Your task to perform on an android device: turn off improve location accuracy Image 0: 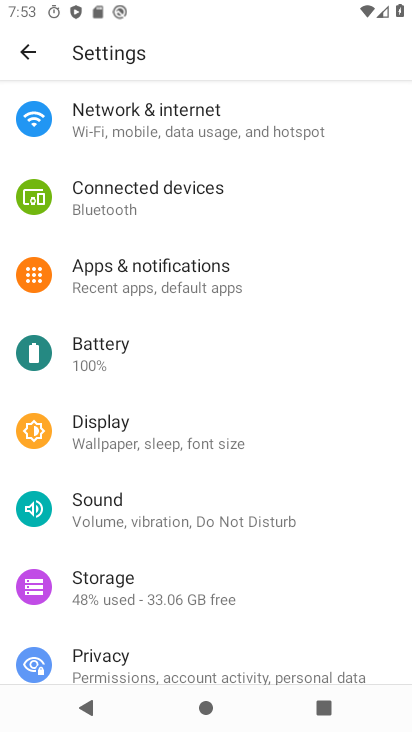
Step 0: drag from (320, 609) to (325, 349)
Your task to perform on an android device: turn off improve location accuracy Image 1: 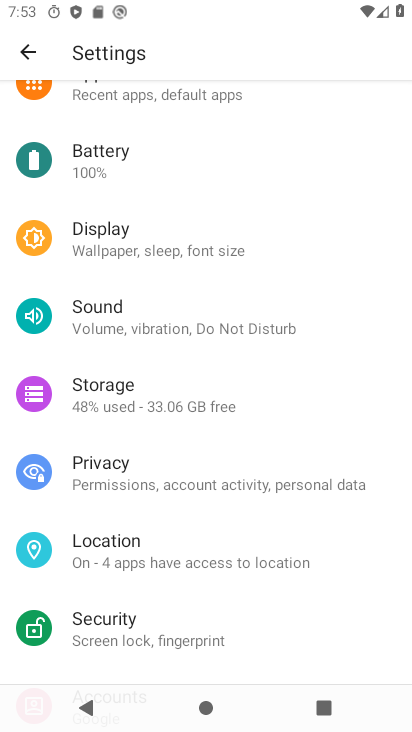
Step 1: click (129, 543)
Your task to perform on an android device: turn off improve location accuracy Image 2: 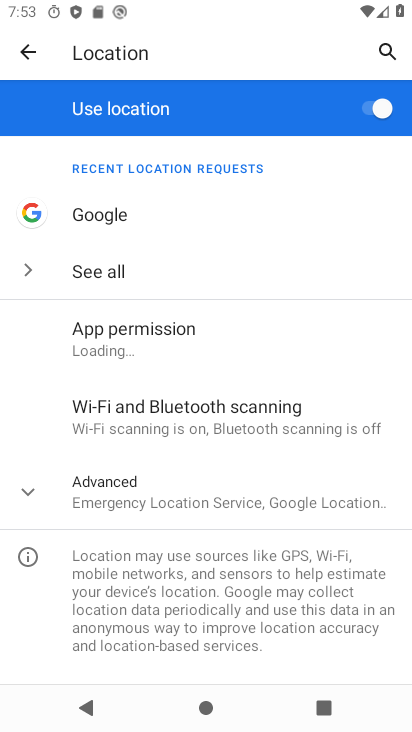
Step 2: click (33, 498)
Your task to perform on an android device: turn off improve location accuracy Image 3: 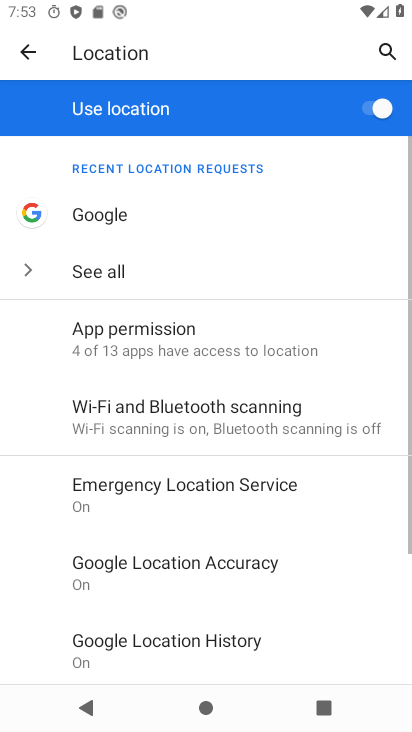
Step 3: click (164, 572)
Your task to perform on an android device: turn off improve location accuracy Image 4: 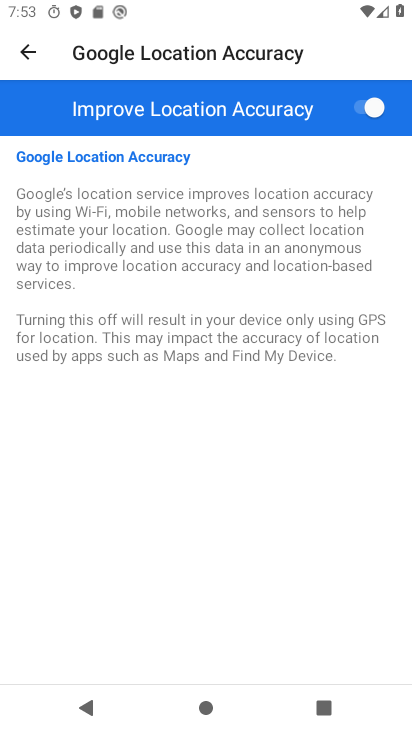
Step 4: click (368, 115)
Your task to perform on an android device: turn off improve location accuracy Image 5: 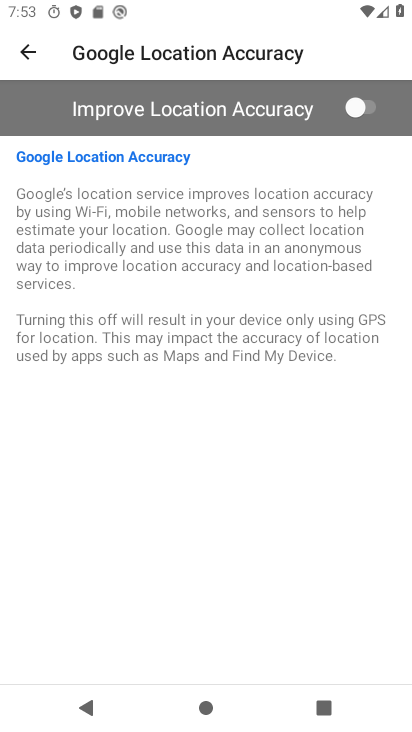
Step 5: task complete